Your task to perform on an android device: empty trash in the gmail app Image 0: 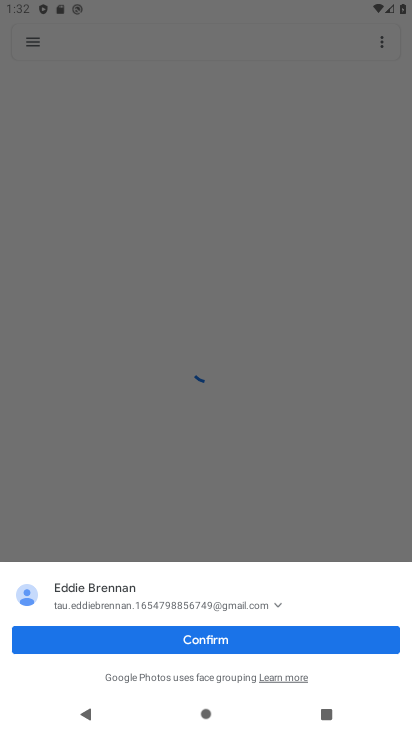
Step 0: press home button
Your task to perform on an android device: empty trash in the gmail app Image 1: 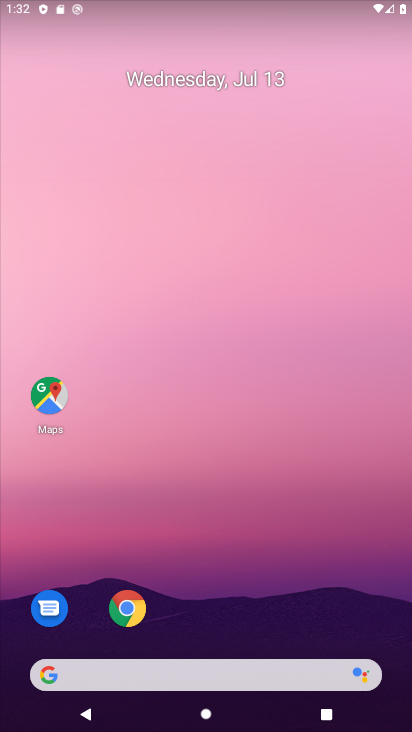
Step 1: drag from (288, 594) to (213, 16)
Your task to perform on an android device: empty trash in the gmail app Image 2: 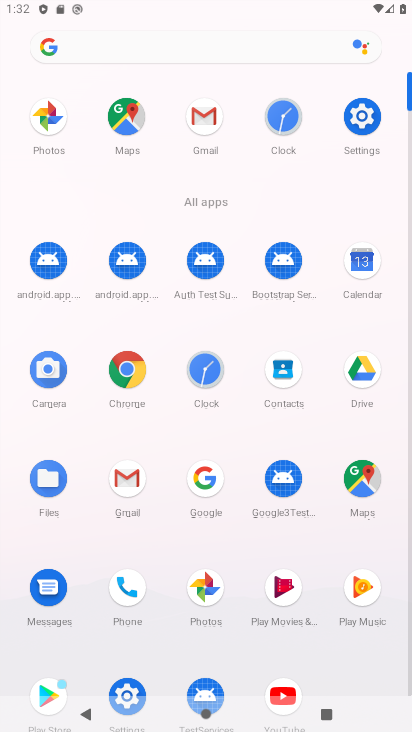
Step 2: click (129, 474)
Your task to perform on an android device: empty trash in the gmail app Image 3: 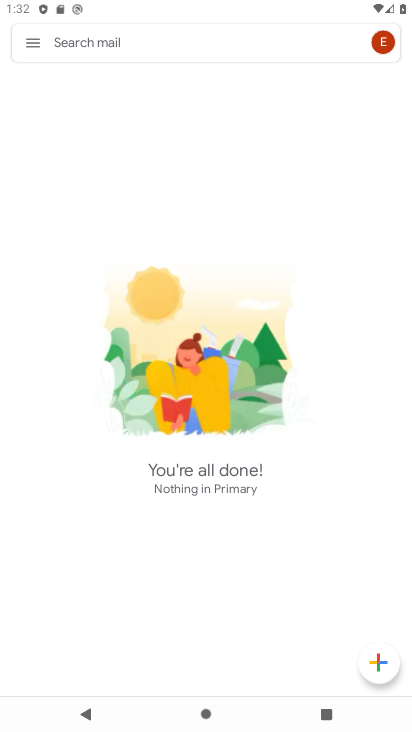
Step 3: click (38, 46)
Your task to perform on an android device: empty trash in the gmail app Image 4: 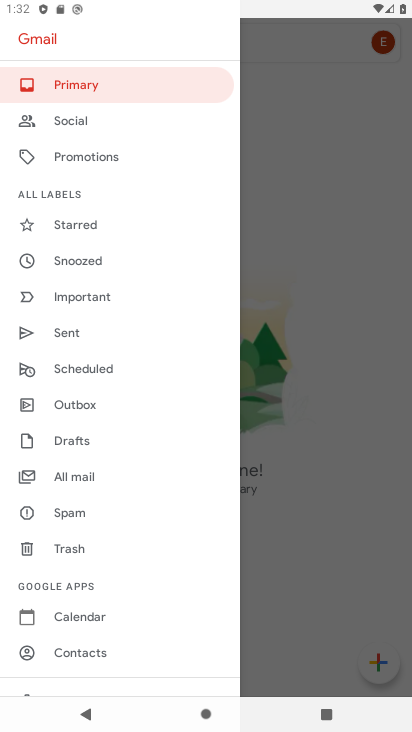
Step 4: click (69, 549)
Your task to perform on an android device: empty trash in the gmail app Image 5: 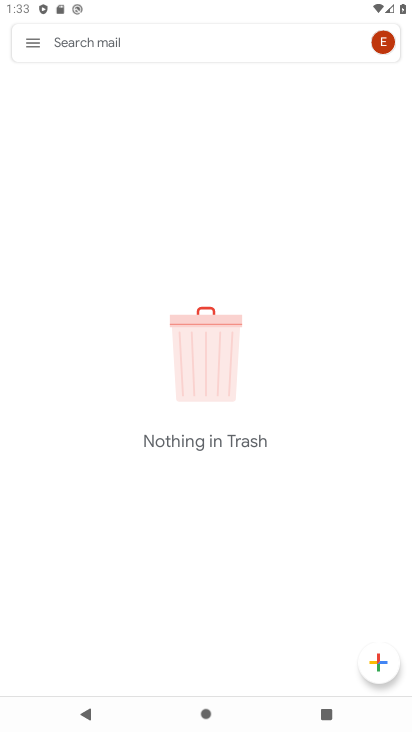
Step 5: task complete